Your task to perform on an android device: Empty the shopping cart on walmart. Search for "razer blade" on walmart, select the first entry, and add it to the cart. Image 0: 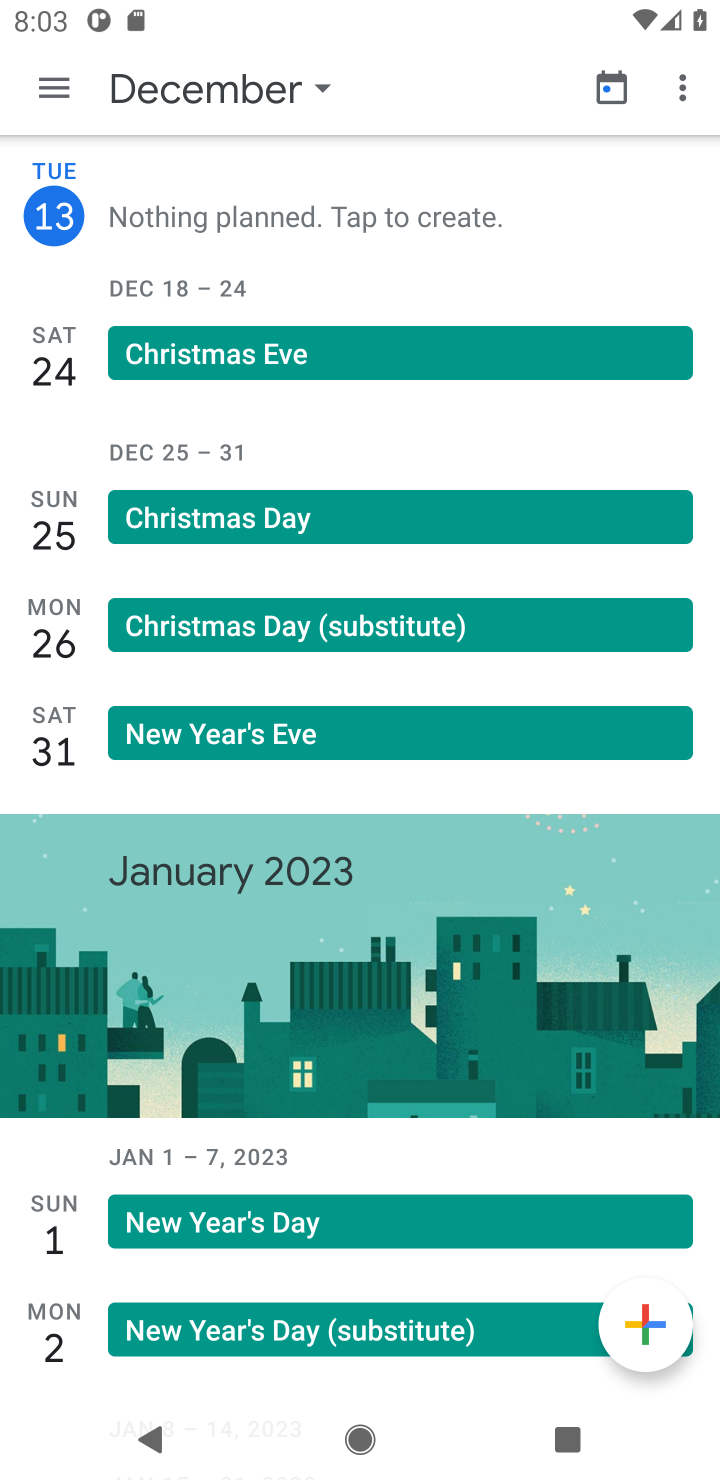
Step 0: press home button
Your task to perform on an android device: Empty the shopping cart on walmart. Search for "razer blade" on walmart, select the first entry, and add it to the cart. Image 1: 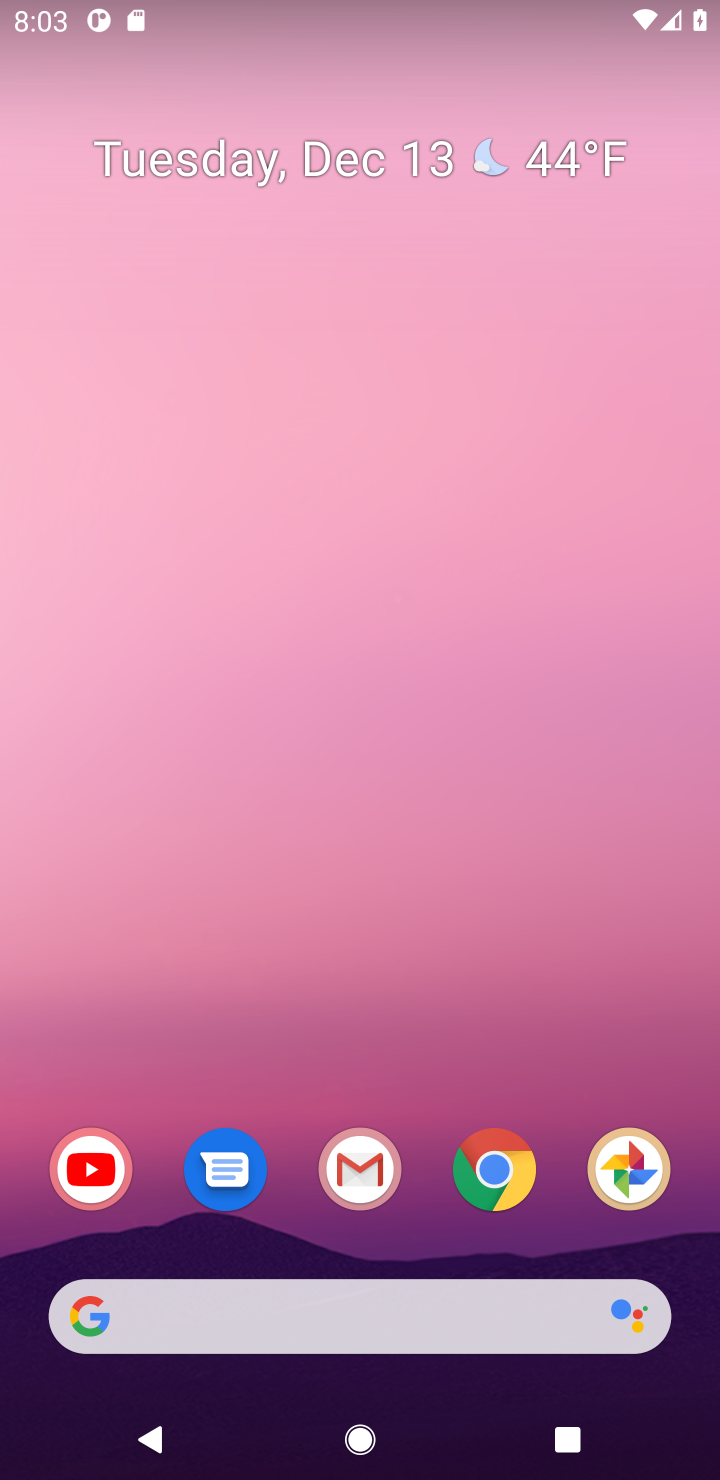
Step 1: click (494, 1212)
Your task to perform on an android device: Empty the shopping cart on walmart. Search for "razer blade" on walmart, select the first entry, and add it to the cart. Image 2: 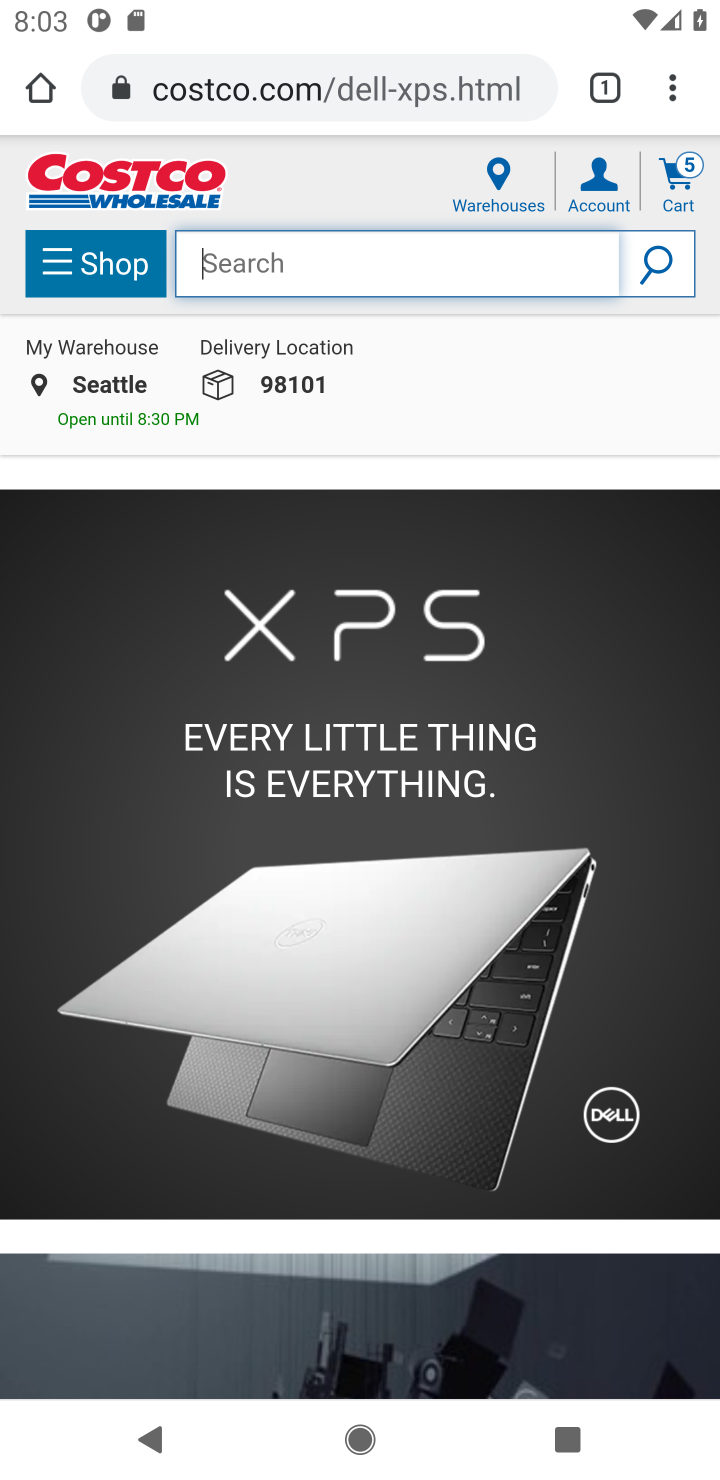
Step 2: type "razer blade"
Your task to perform on an android device: Empty the shopping cart on walmart. Search for "razer blade" on walmart, select the first entry, and add it to the cart. Image 3: 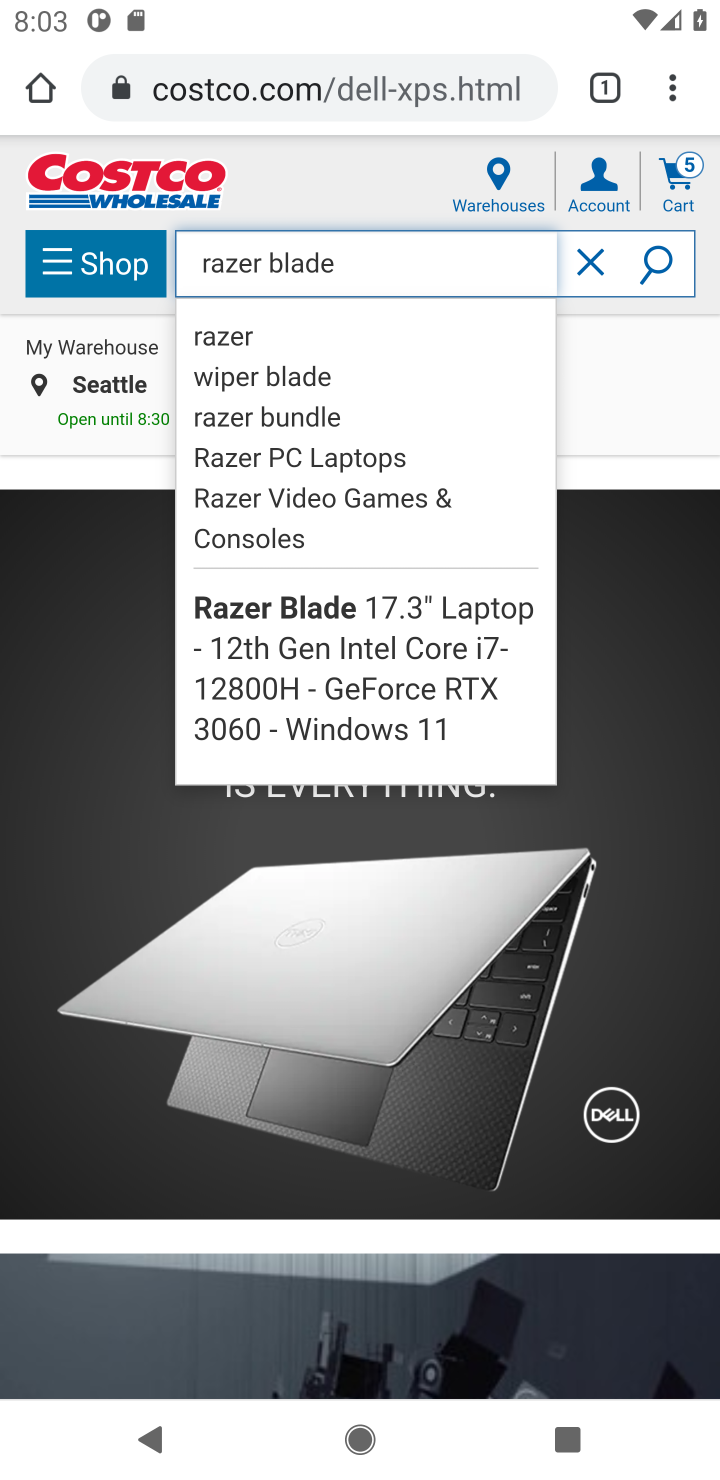
Step 3: click (645, 260)
Your task to perform on an android device: Empty the shopping cart on walmart. Search for "razer blade" on walmart, select the first entry, and add it to the cart. Image 4: 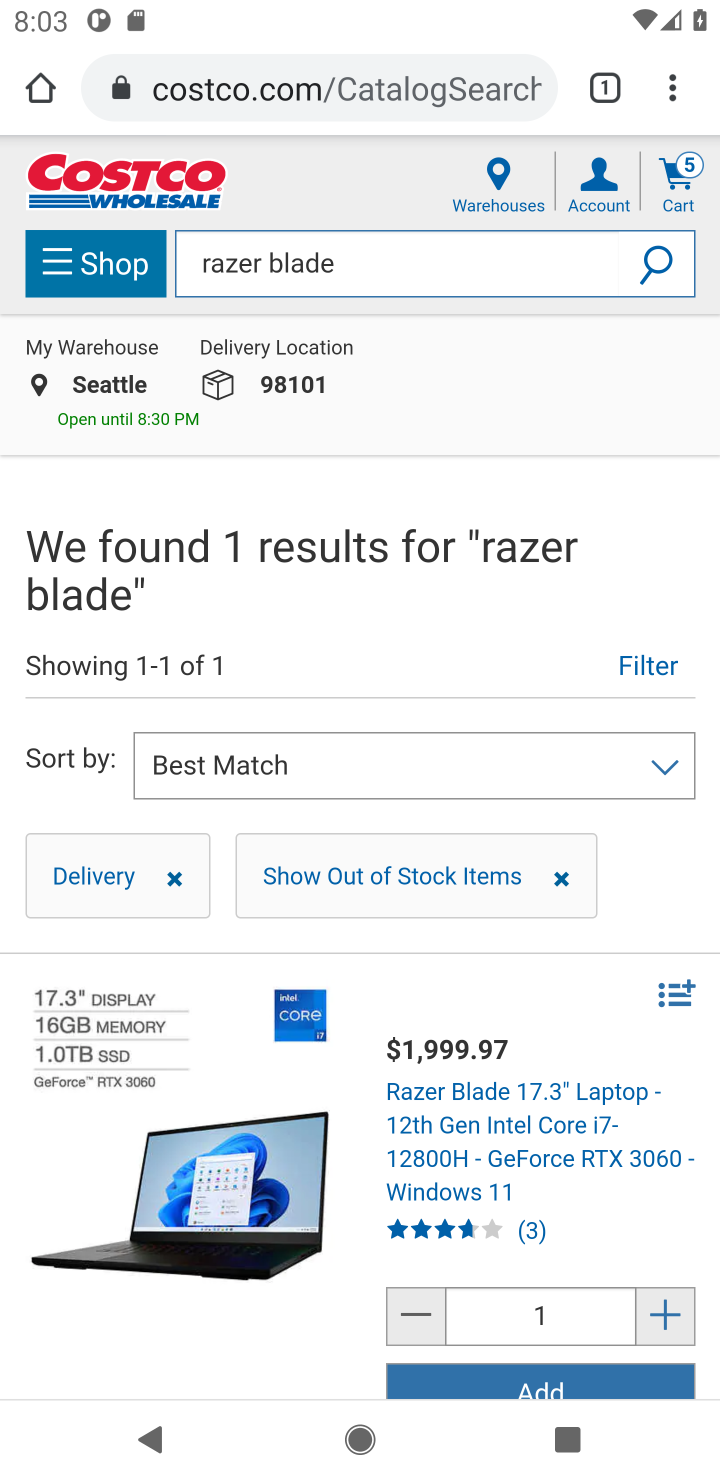
Step 4: task complete